Your task to perform on an android device: Open my contact list Image 0: 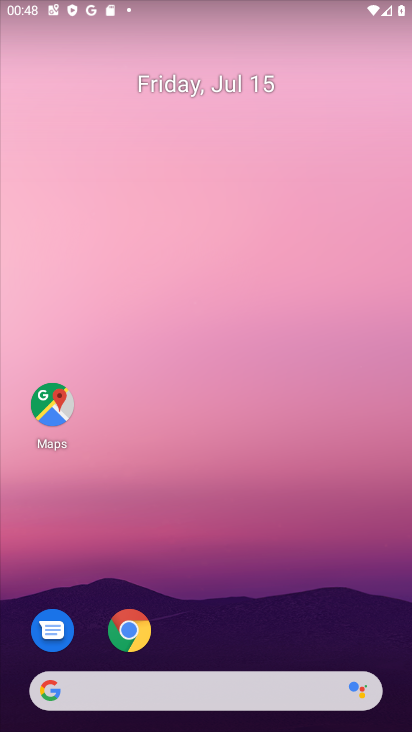
Step 0: drag from (270, 657) to (254, 241)
Your task to perform on an android device: Open my contact list Image 1: 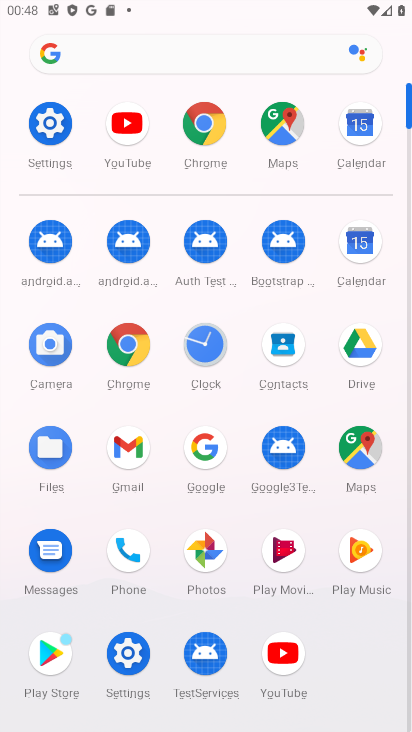
Step 1: click (296, 360)
Your task to perform on an android device: Open my contact list Image 2: 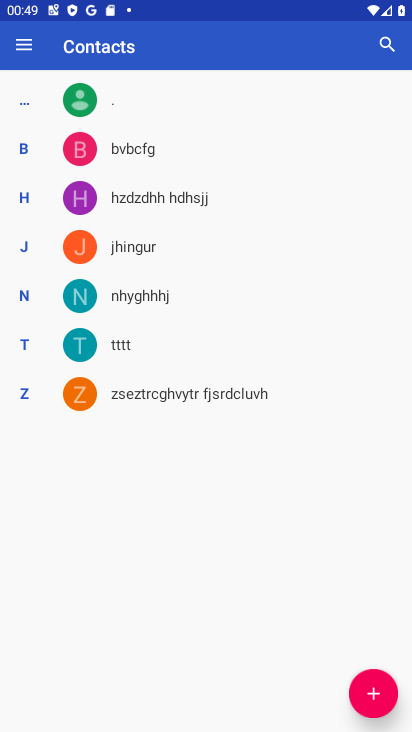
Step 2: task complete